Your task to perform on an android device: clear history in the chrome app Image 0: 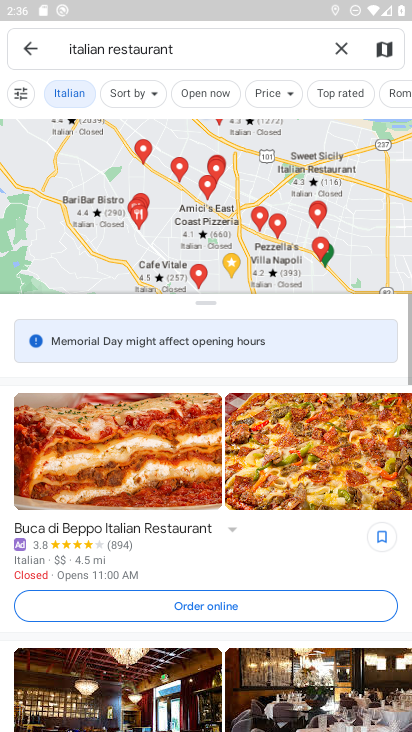
Step 0: press home button
Your task to perform on an android device: clear history in the chrome app Image 1: 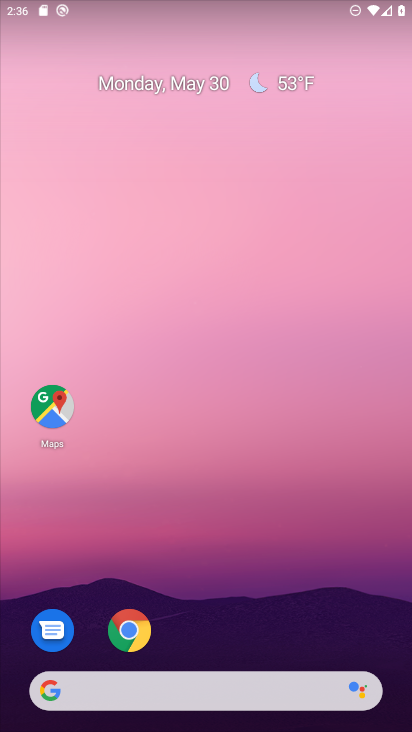
Step 1: click (127, 629)
Your task to perform on an android device: clear history in the chrome app Image 2: 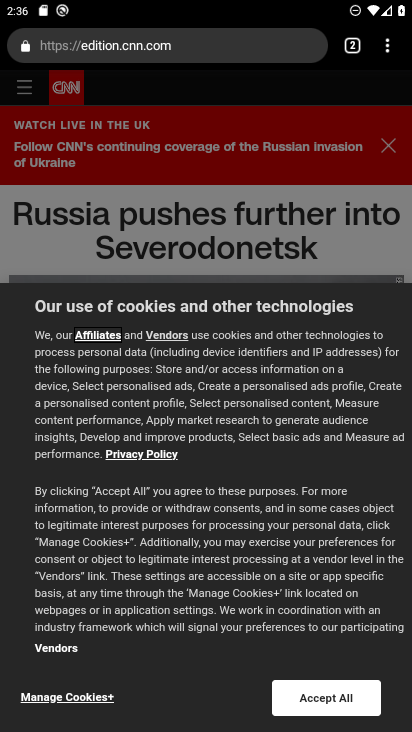
Step 2: click (395, 55)
Your task to perform on an android device: clear history in the chrome app Image 3: 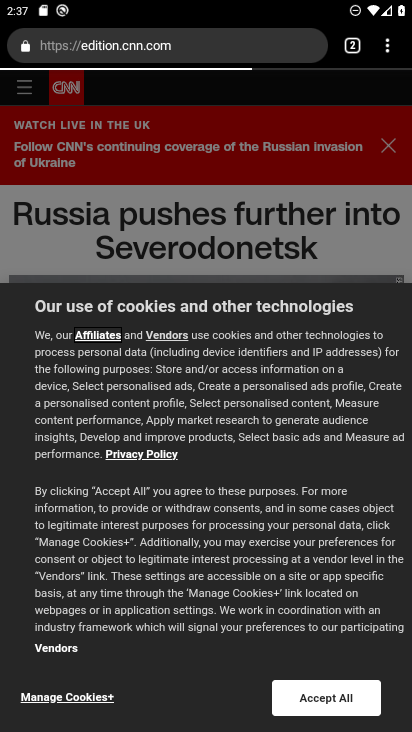
Step 3: drag from (395, 55) to (224, 253)
Your task to perform on an android device: clear history in the chrome app Image 4: 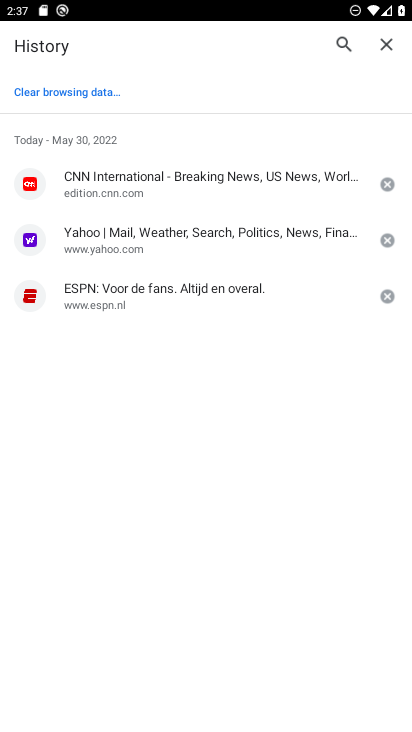
Step 4: click (63, 84)
Your task to perform on an android device: clear history in the chrome app Image 5: 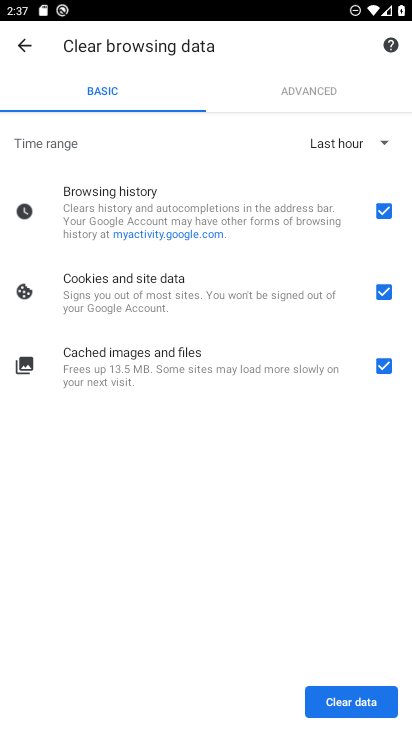
Step 5: click (341, 697)
Your task to perform on an android device: clear history in the chrome app Image 6: 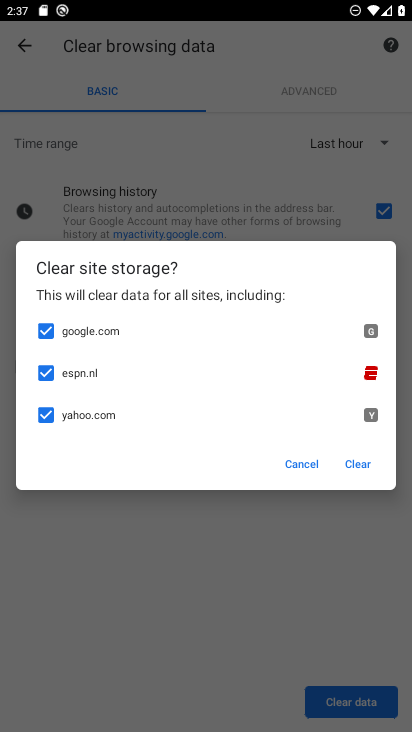
Step 6: click (361, 465)
Your task to perform on an android device: clear history in the chrome app Image 7: 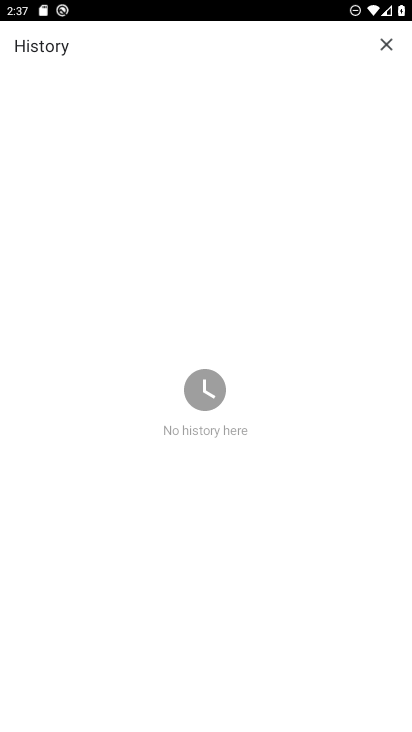
Step 7: task complete